Your task to perform on an android device: Go to Yahoo.com Image 0: 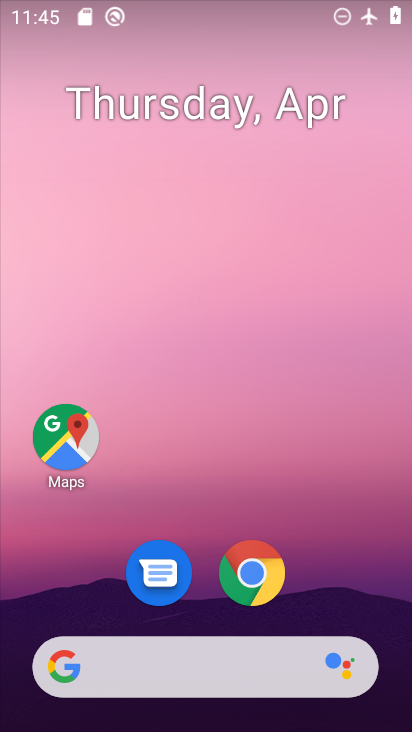
Step 0: click (245, 566)
Your task to perform on an android device: Go to Yahoo.com Image 1: 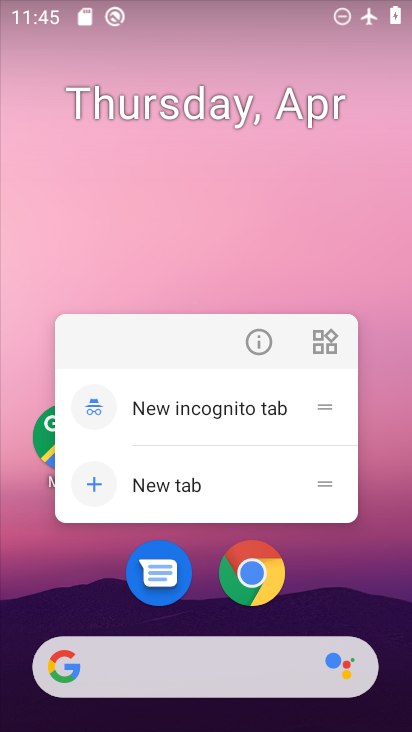
Step 1: click (255, 563)
Your task to perform on an android device: Go to Yahoo.com Image 2: 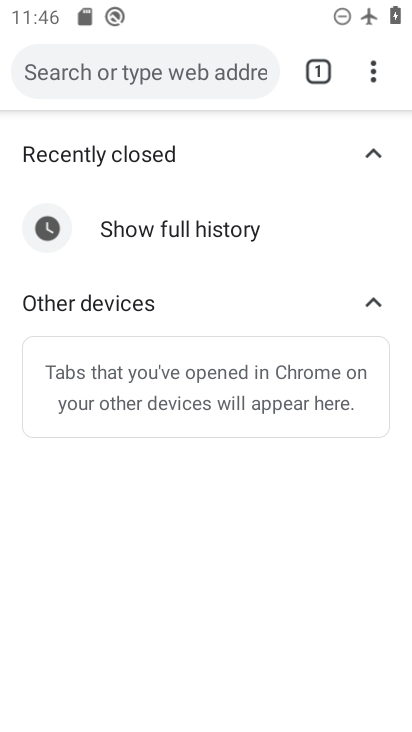
Step 2: click (164, 60)
Your task to perform on an android device: Go to Yahoo.com Image 3: 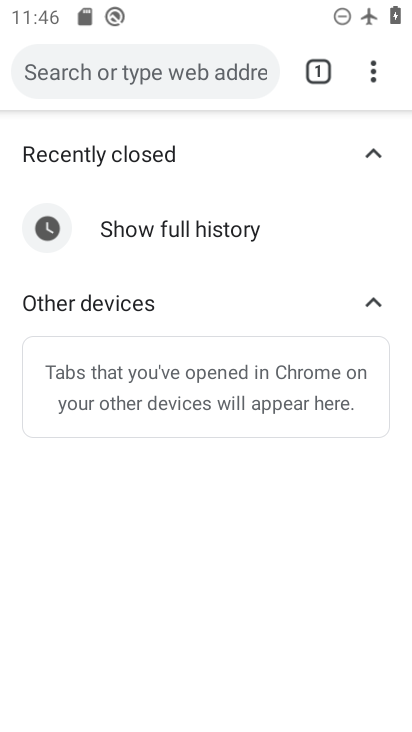
Step 3: click (164, 60)
Your task to perform on an android device: Go to Yahoo.com Image 4: 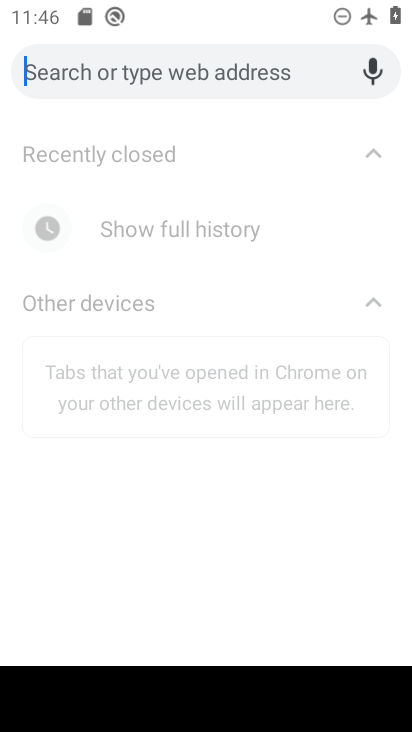
Step 4: type "yahoo.com"
Your task to perform on an android device: Go to Yahoo.com Image 5: 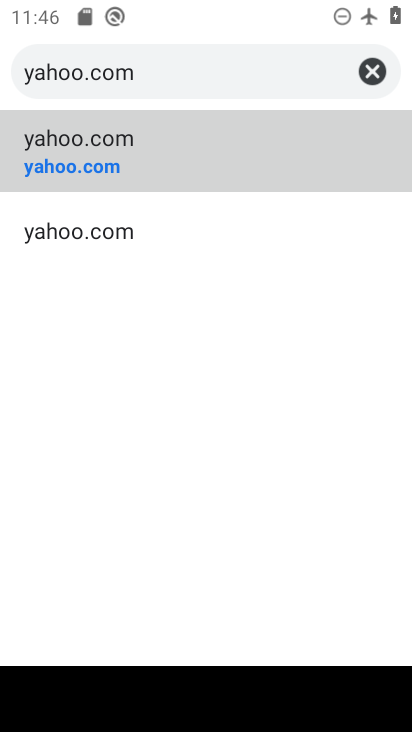
Step 5: click (143, 153)
Your task to perform on an android device: Go to Yahoo.com Image 6: 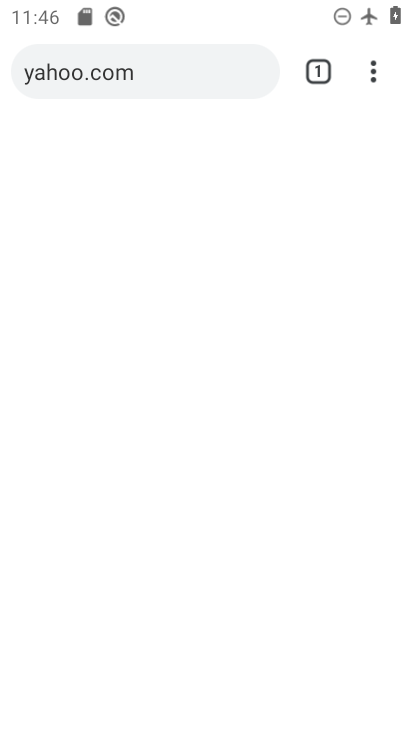
Step 6: click (143, 153)
Your task to perform on an android device: Go to Yahoo.com Image 7: 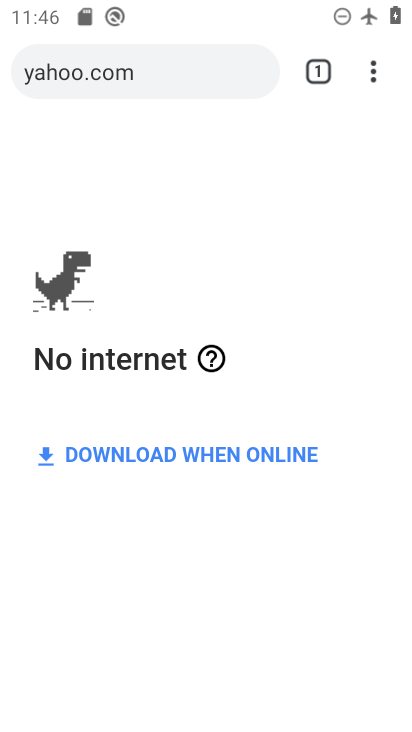
Step 7: task complete